Your task to perform on an android device: clear history in the chrome app Image 0: 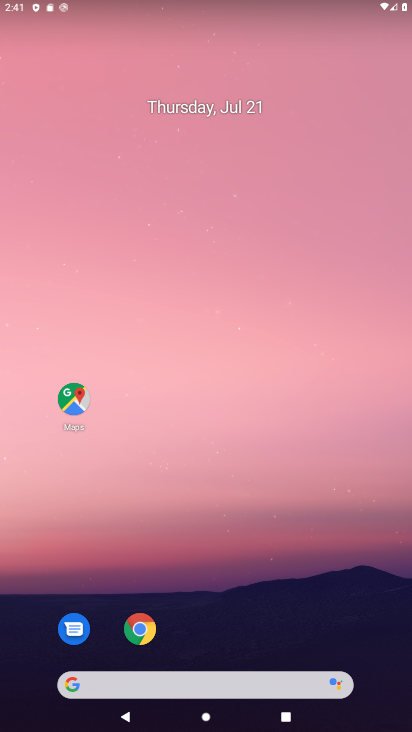
Step 0: drag from (238, 649) to (205, 250)
Your task to perform on an android device: clear history in the chrome app Image 1: 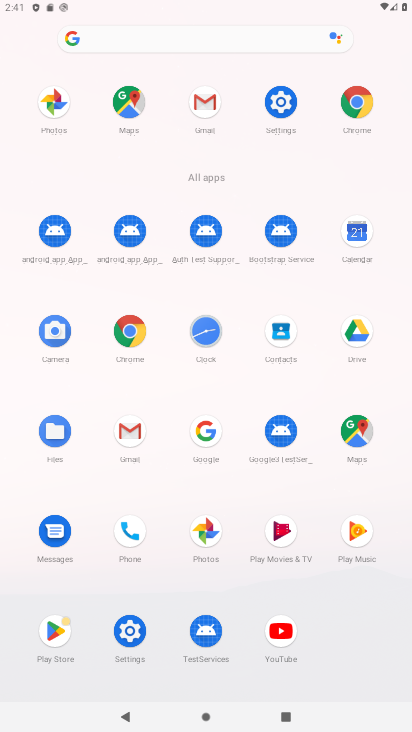
Step 1: click (141, 321)
Your task to perform on an android device: clear history in the chrome app Image 2: 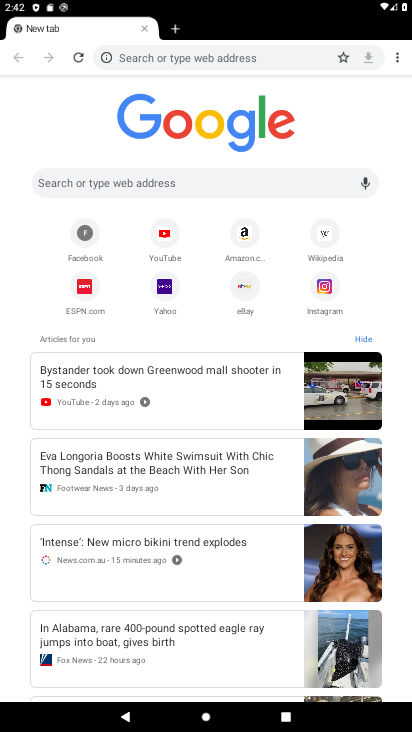
Step 2: click (231, 53)
Your task to perform on an android device: clear history in the chrome app Image 3: 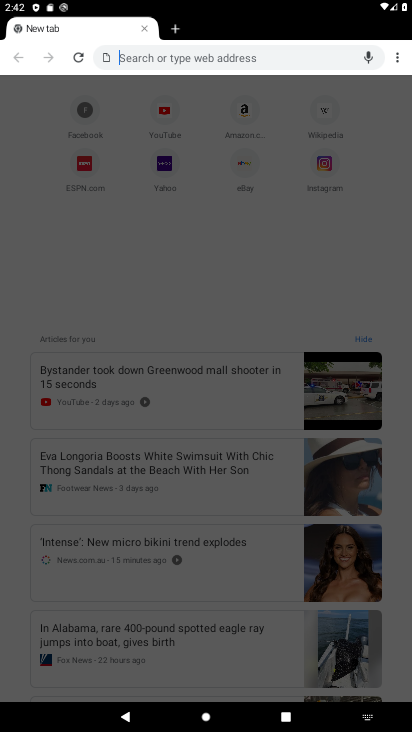
Step 3: click (322, 102)
Your task to perform on an android device: clear history in the chrome app Image 4: 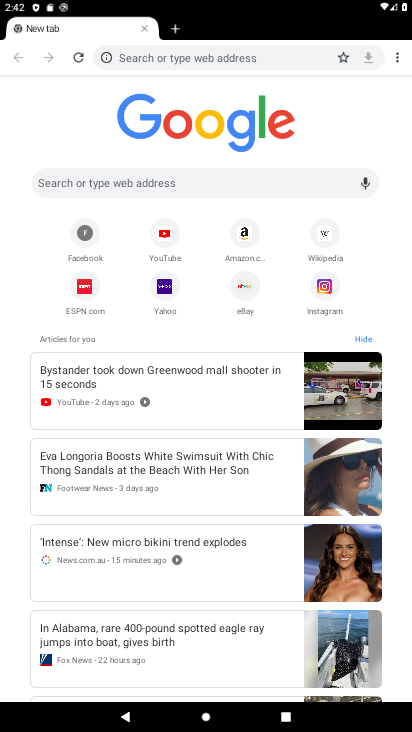
Step 4: drag from (391, 51) to (303, 265)
Your task to perform on an android device: clear history in the chrome app Image 5: 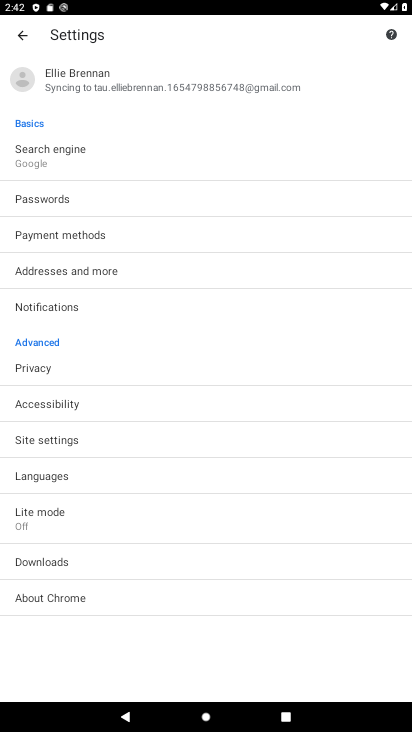
Step 5: click (24, 27)
Your task to perform on an android device: clear history in the chrome app Image 6: 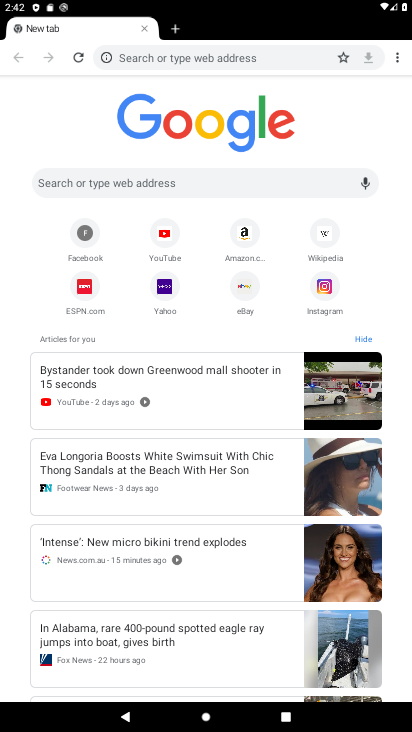
Step 6: drag from (401, 54) to (254, 258)
Your task to perform on an android device: clear history in the chrome app Image 7: 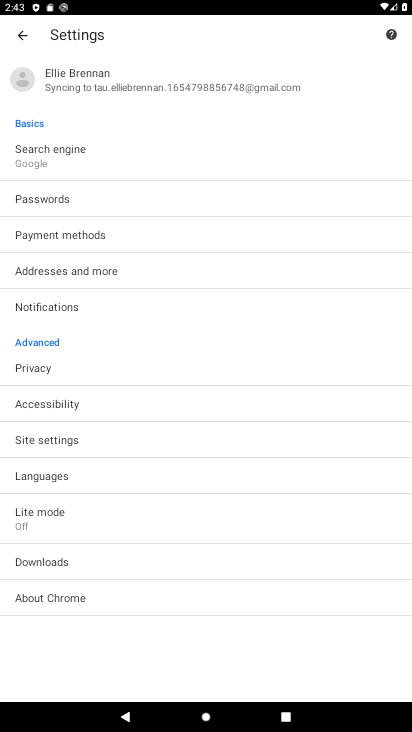
Step 7: click (30, 28)
Your task to perform on an android device: clear history in the chrome app Image 8: 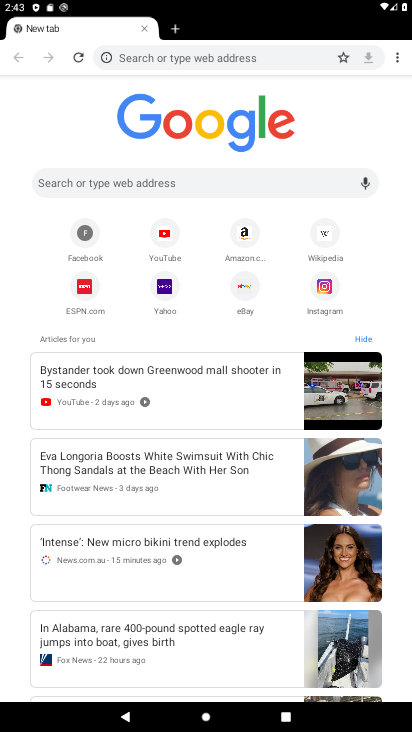
Step 8: drag from (398, 50) to (262, 166)
Your task to perform on an android device: clear history in the chrome app Image 9: 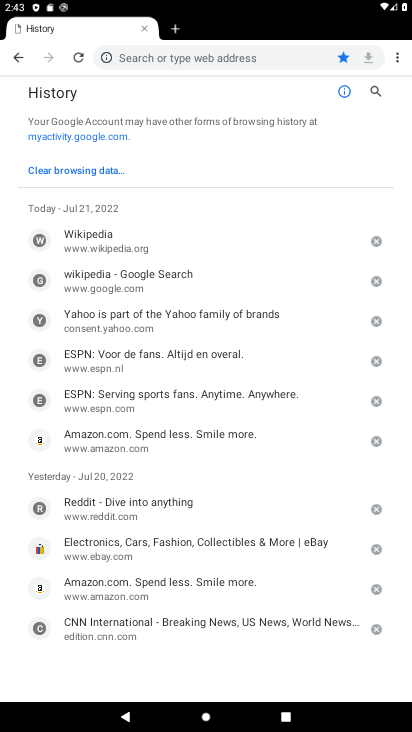
Step 9: click (19, 177)
Your task to perform on an android device: clear history in the chrome app Image 10: 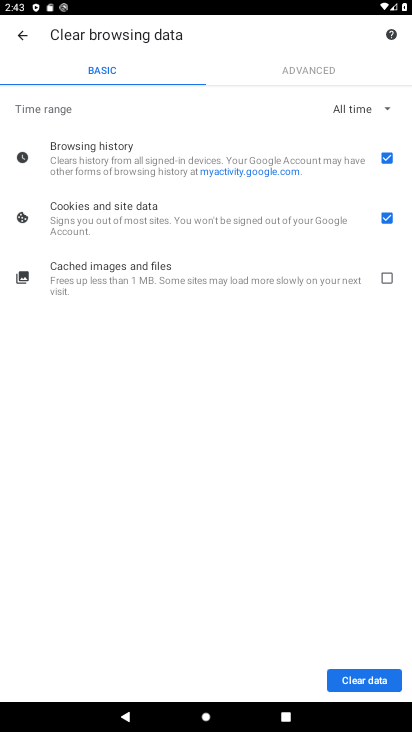
Step 10: click (383, 674)
Your task to perform on an android device: clear history in the chrome app Image 11: 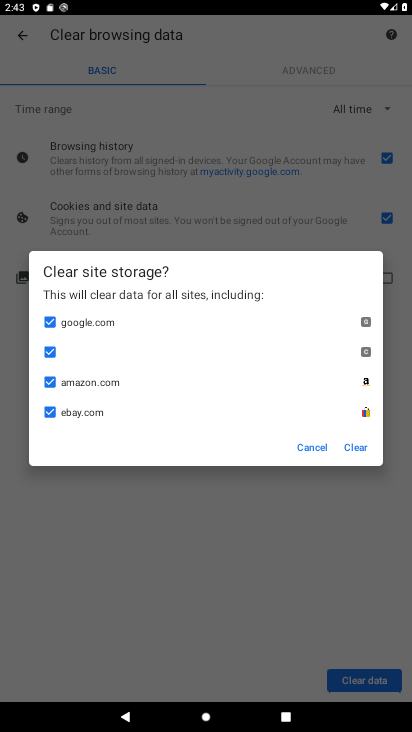
Step 11: click (351, 450)
Your task to perform on an android device: clear history in the chrome app Image 12: 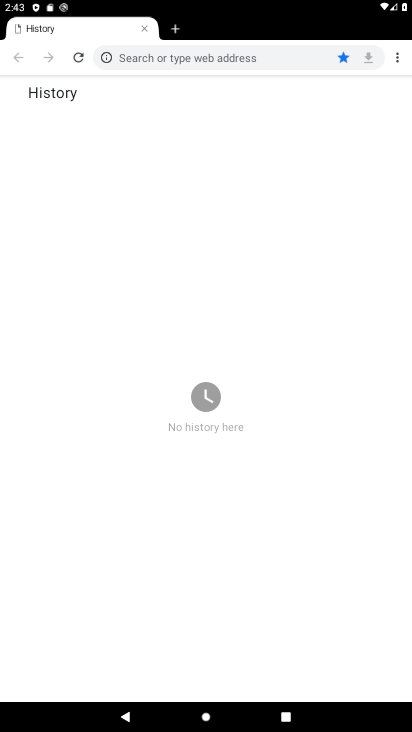
Step 12: task complete